Your task to perform on an android device: Open eBay Image 0: 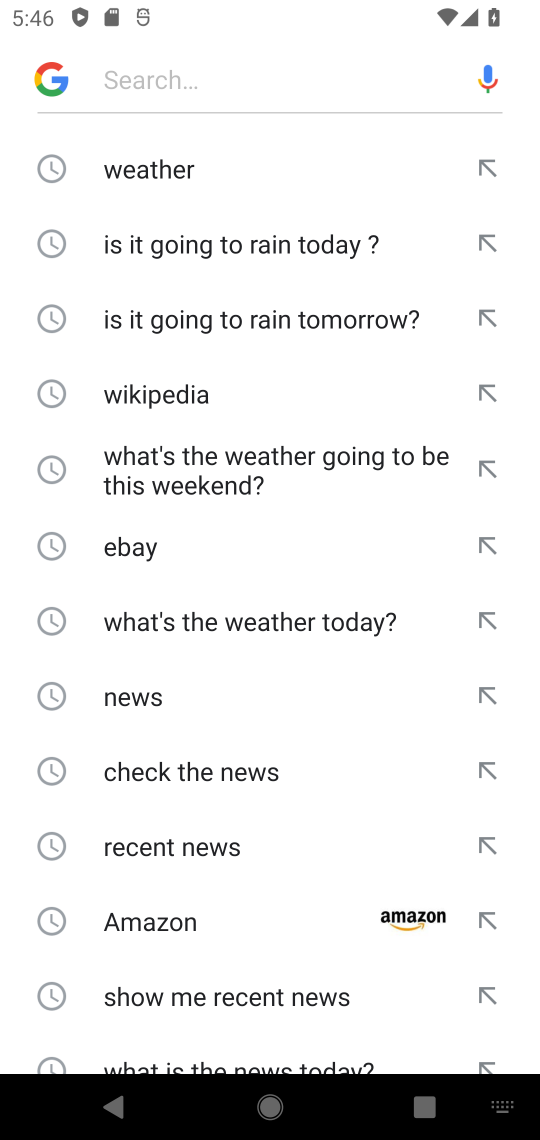
Step 0: press back button
Your task to perform on an android device: Open eBay Image 1: 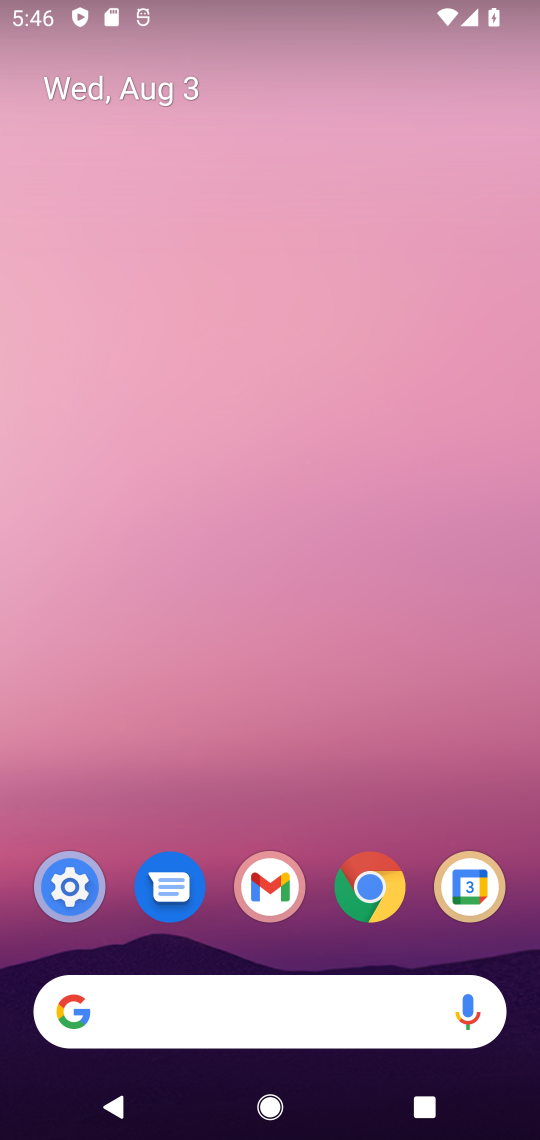
Step 1: click (388, 886)
Your task to perform on an android device: Open eBay Image 2: 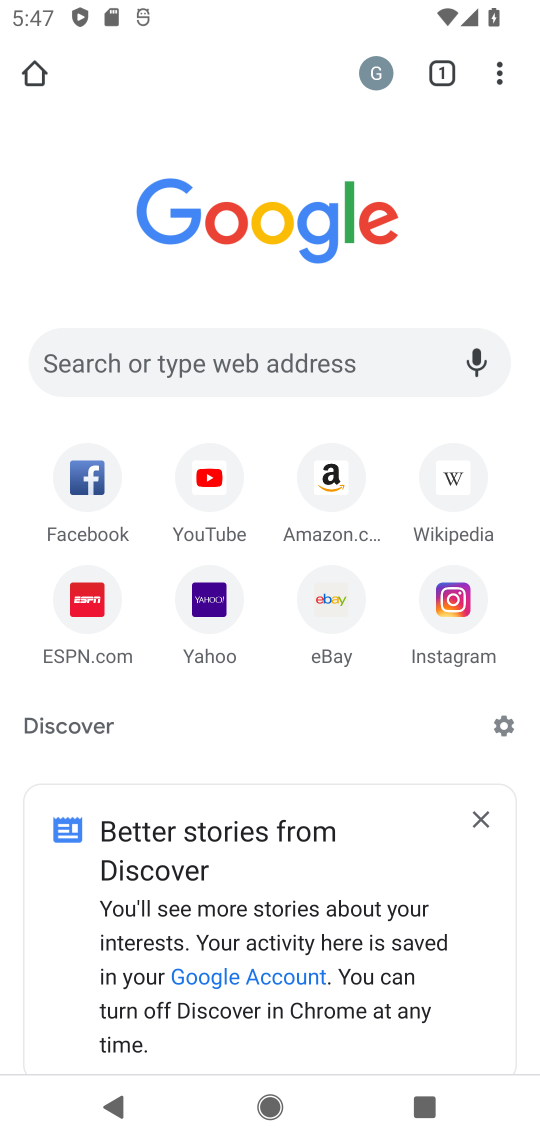
Step 2: click (334, 605)
Your task to perform on an android device: Open eBay Image 3: 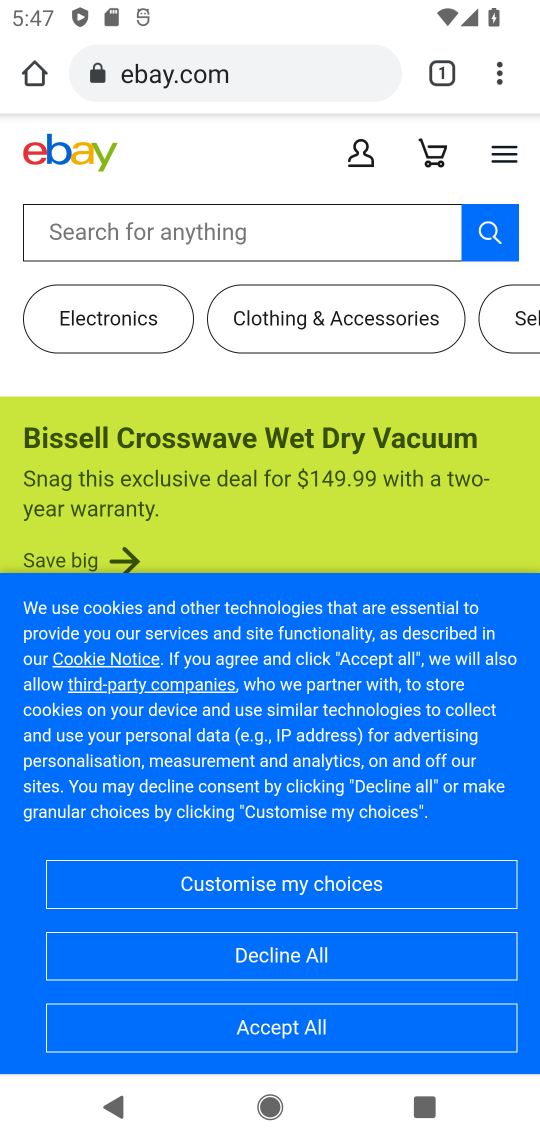
Step 3: task complete